Your task to perform on an android device: toggle sleep mode Image 0: 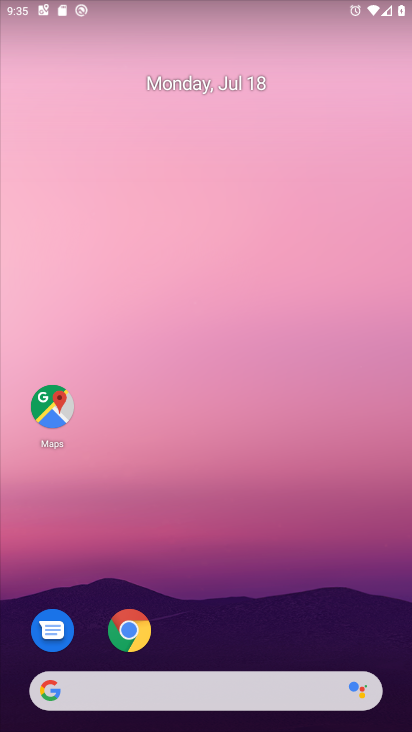
Step 0: drag from (242, 658) to (255, 225)
Your task to perform on an android device: toggle sleep mode Image 1: 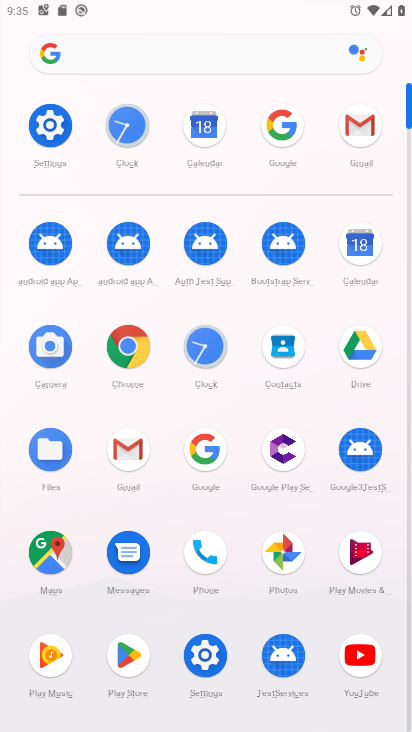
Step 1: click (59, 123)
Your task to perform on an android device: toggle sleep mode Image 2: 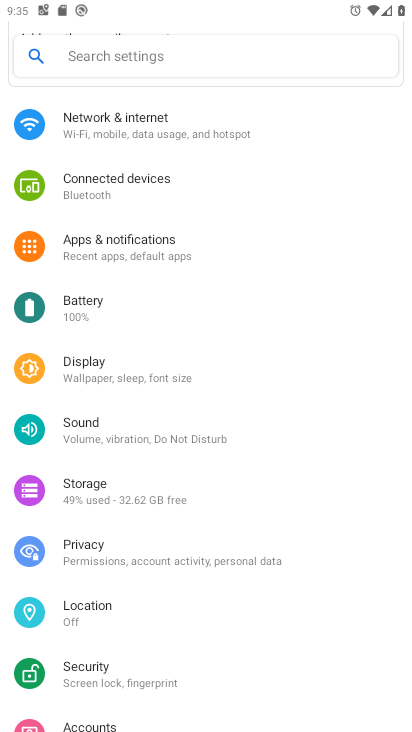
Step 2: click (115, 379)
Your task to perform on an android device: toggle sleep mode Image 3: 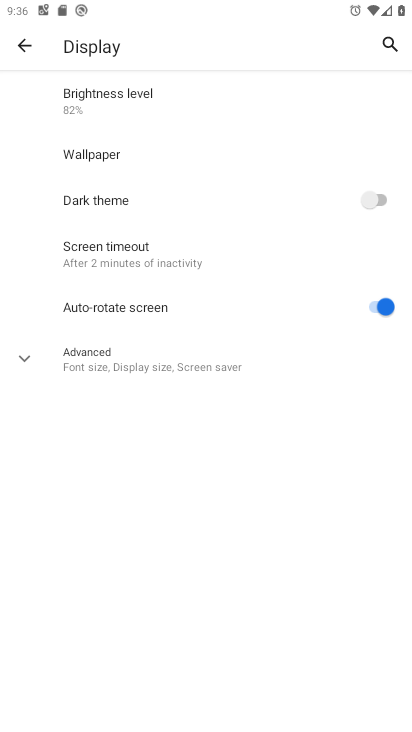
Step 3: click (136, 252)
Your task to perform on an android device: toggle sleep mode Image 4: 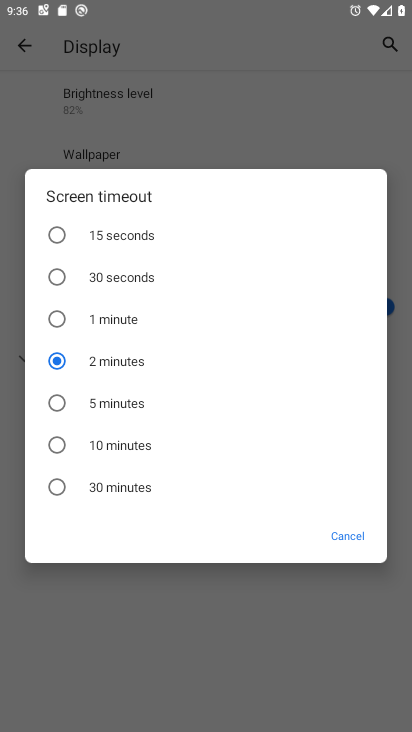
Step 4: click (80, 271)
Your task to perform on an android device: toggle sleep mode Image 5: 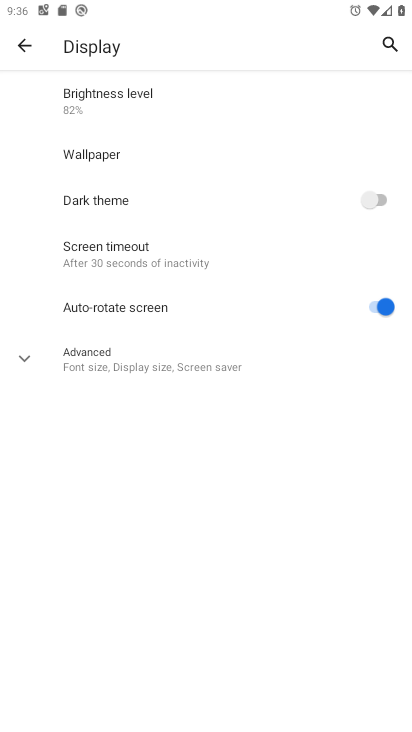
Step 5: task complete